Your task to perform on an android device: install app "Google Home" Image 0: 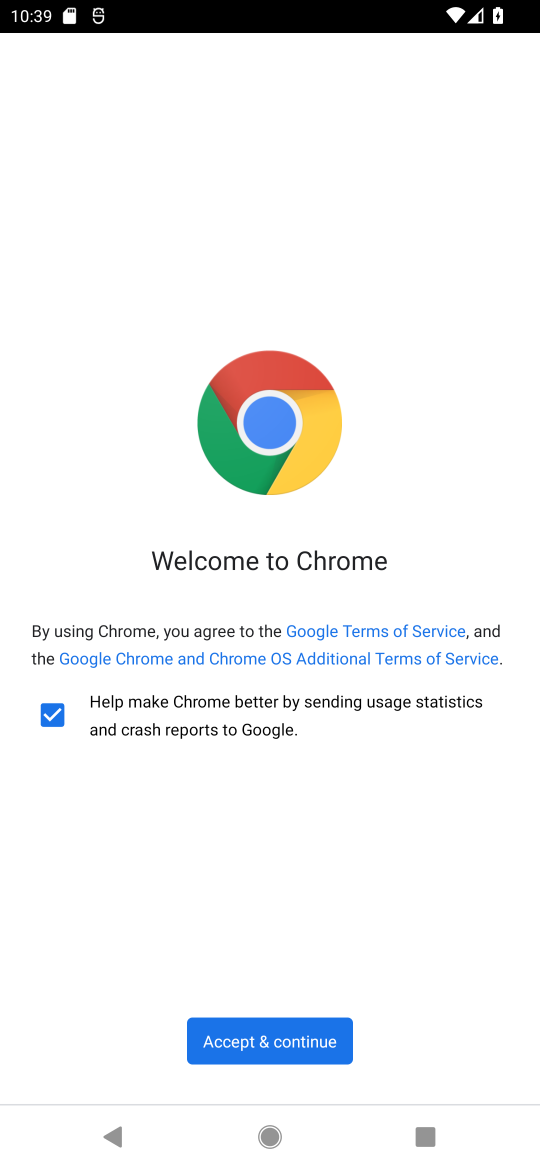
Step 0: press home button
Your task to perform on an android device: install app "Google Home" Image 1: 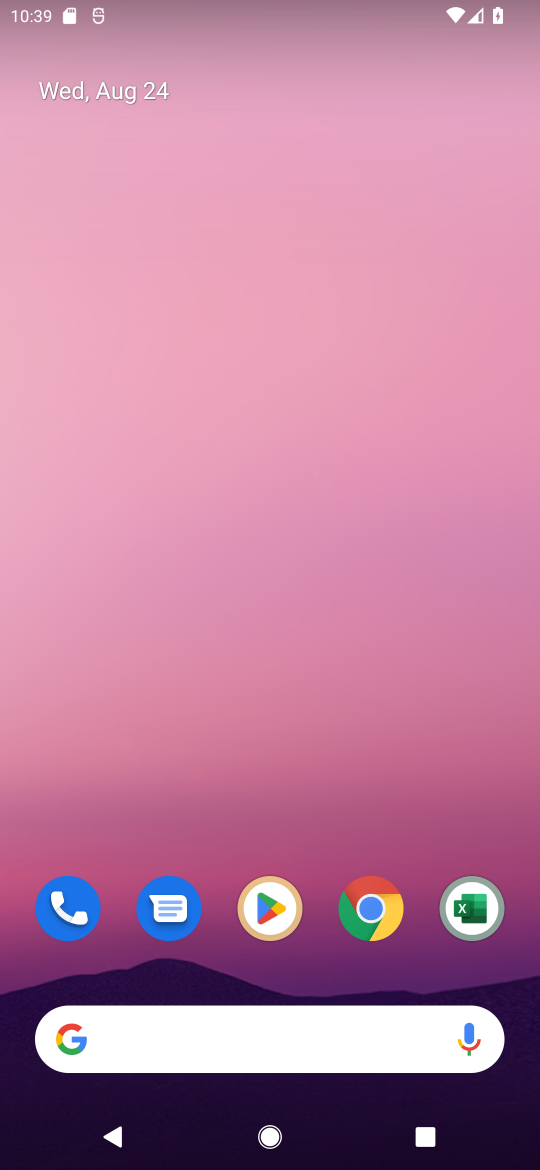
Step 1: click (261, 922)
Your task to perform on an android device: install app "Google Home" Image 2: 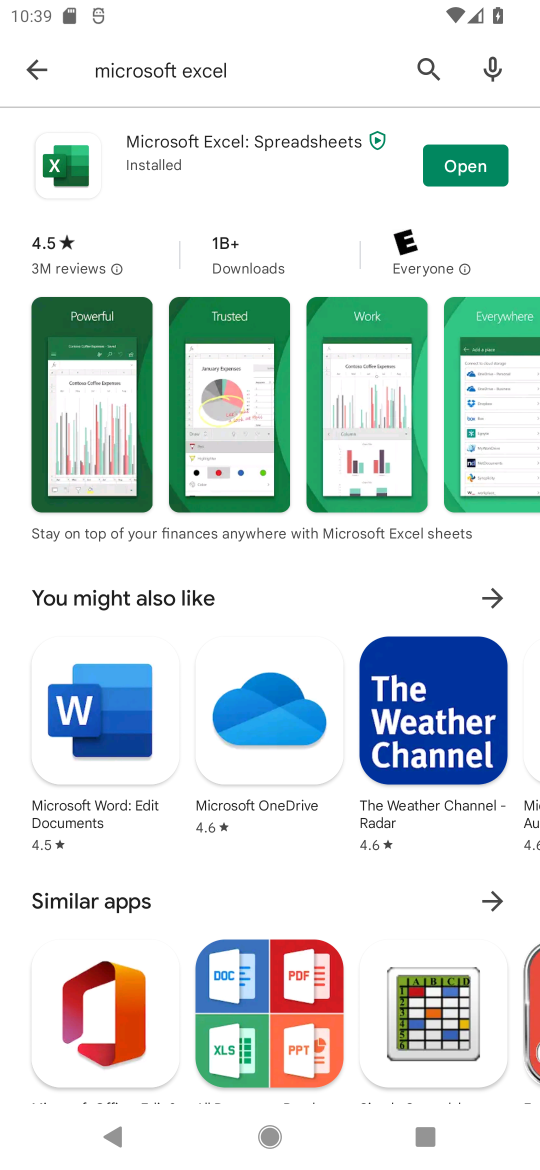
Step 2: click (58, 72)
Your task to perform on an android device: install app "Google Home" Image 3: 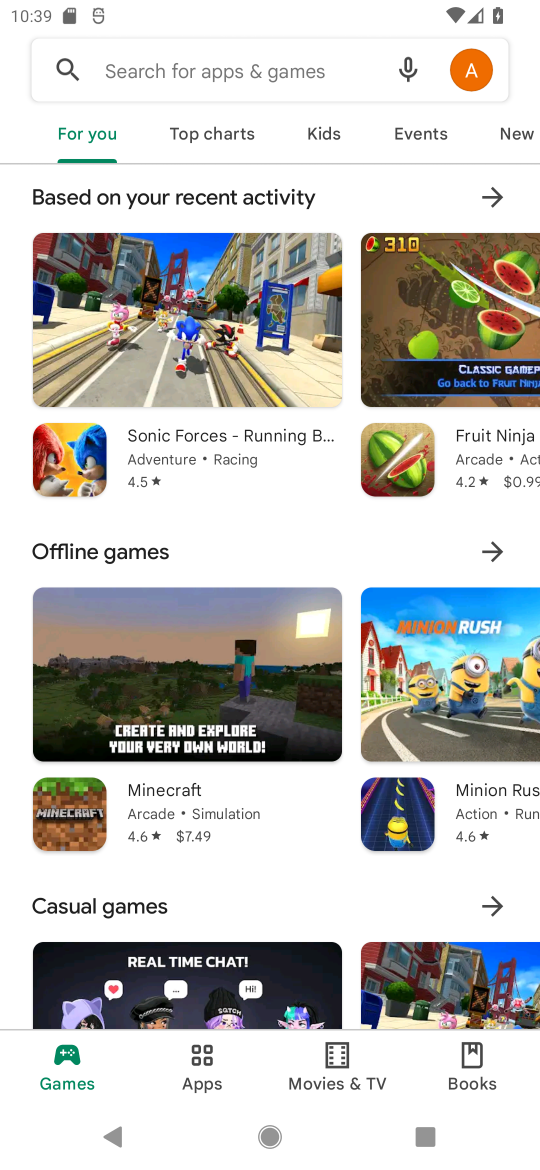
Step 3: click (100, 80)
Your task to perform on an android device: install app "Google Home" Image 4: 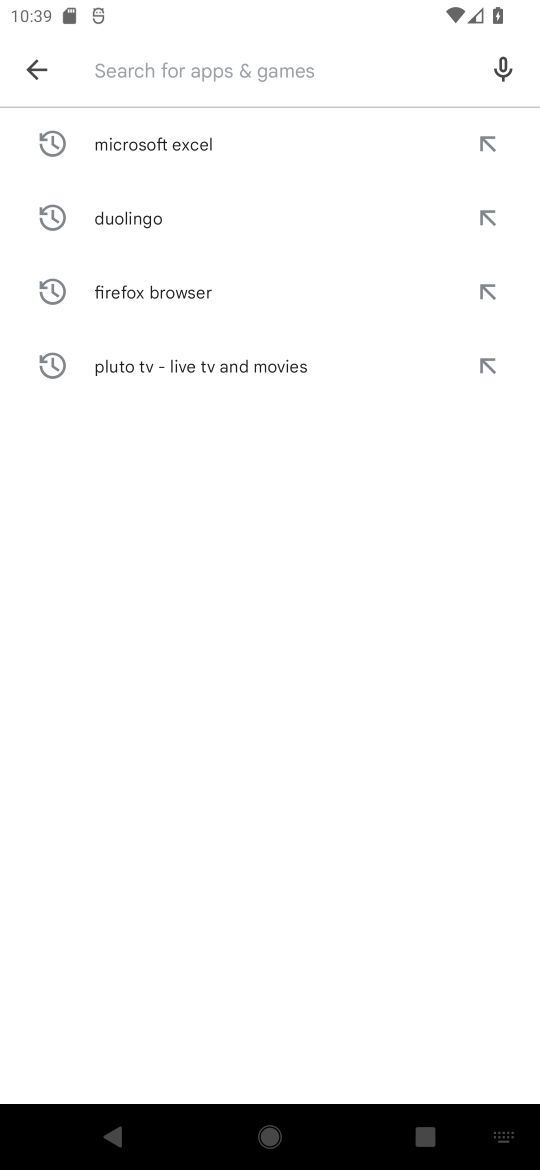
Step 4: type "Google Home"
Your task to perform on an android device: install app "Google Home" Image 5: 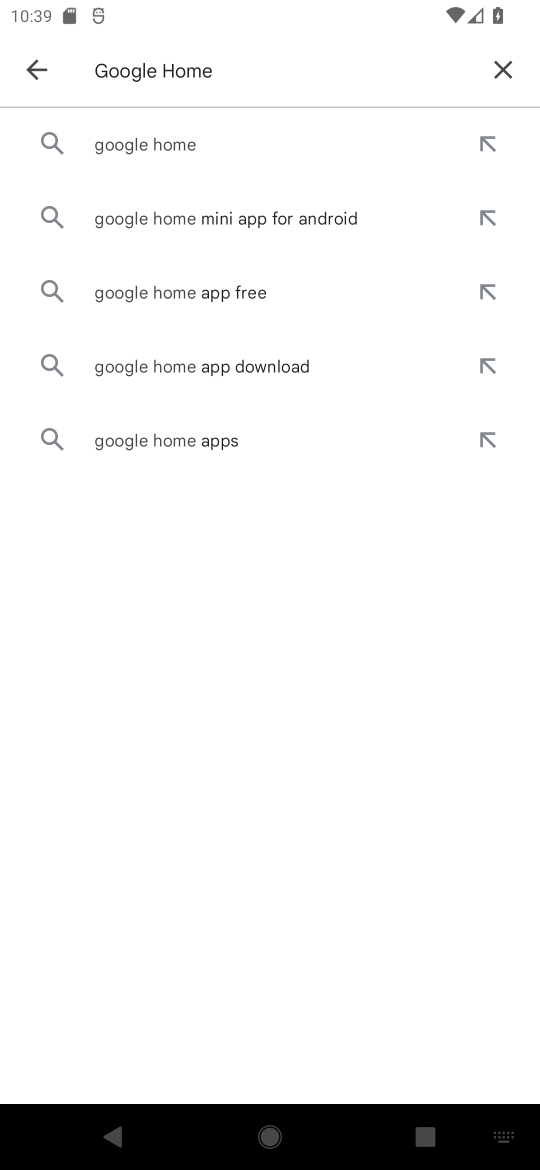
Step 5: click (115, 149)
Your task to perform on an android device: install app "Google Home" Image 6: 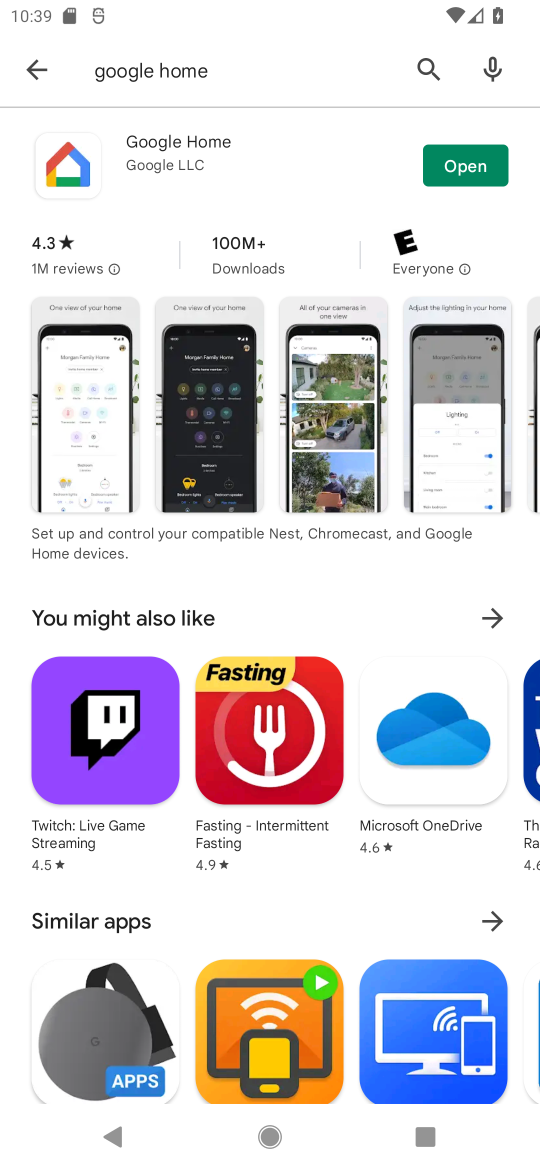
Step 6: click (309, 156)
Your task to perform on an android device: install app "Google Home" Image 7: 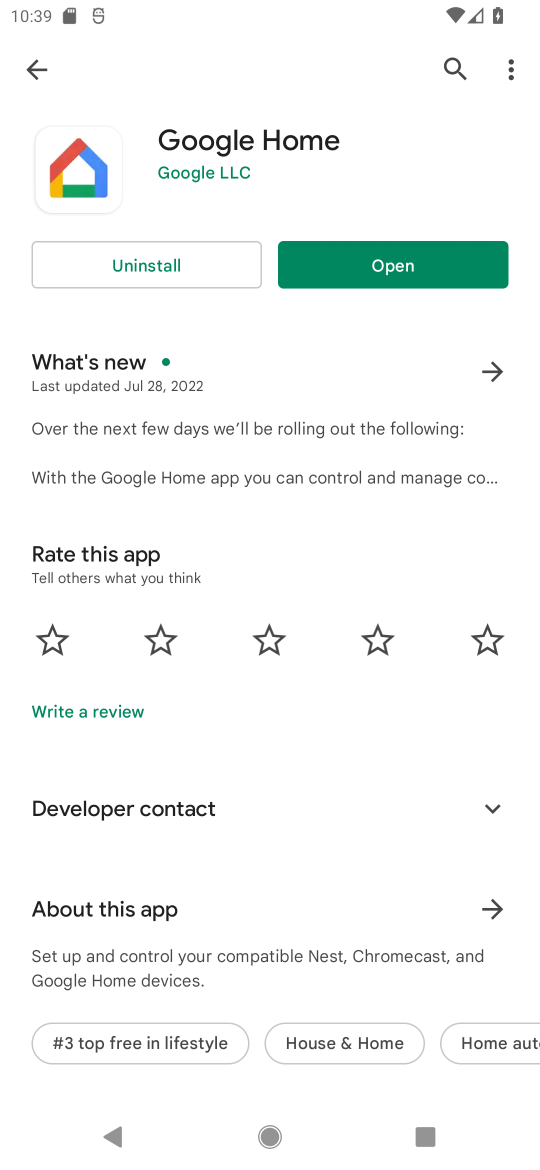
Step 7: task complete